Your task to perform on an android device: check out phone information Image 0: 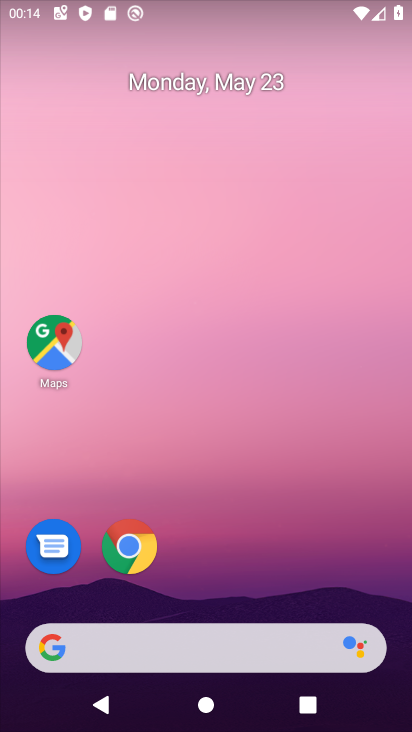
Step 0: click (278, 149)
Your task to perform on an android device: check out phone information Image 1: 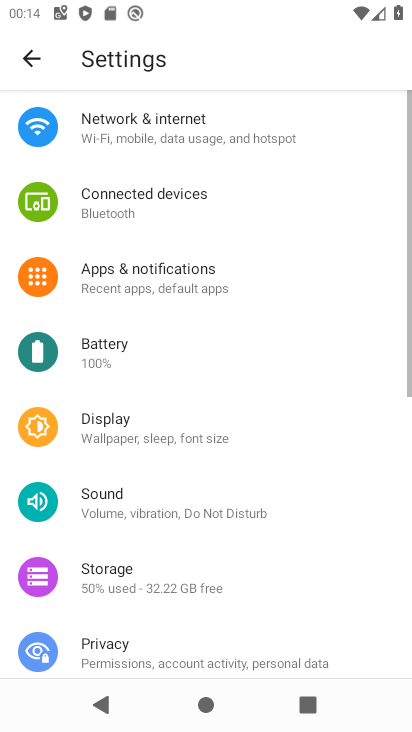
Step 1: drag from (253, 606) to (385, 20)
Your task to perform on an android device: check out phone information Image 2: 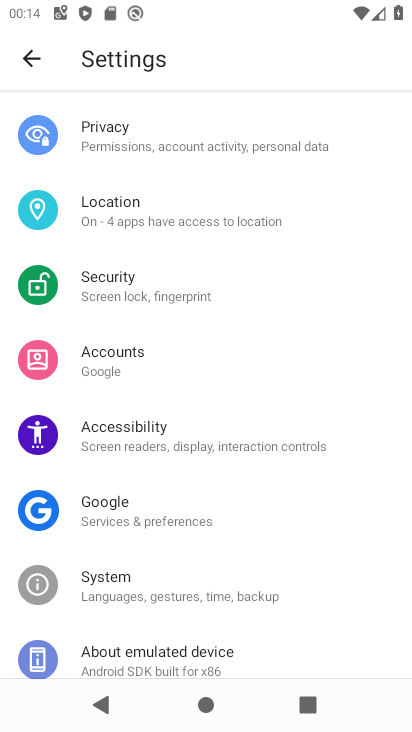
Step 2: click (117, 650)
Your task to perform on an android device: check out phone information Image 3: 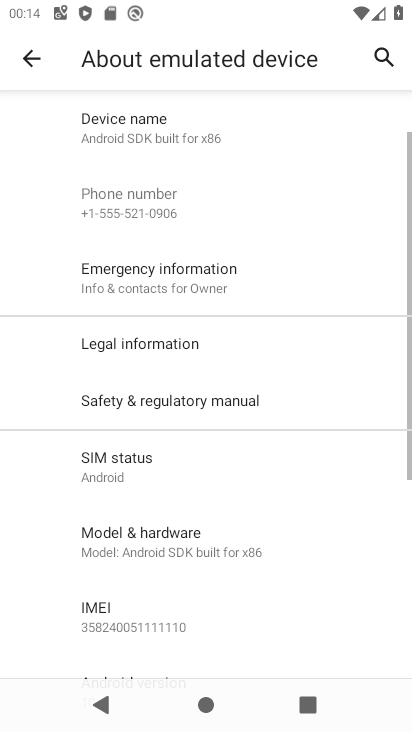
Step 3: drag from (192, 671) to (280, 152)
Your task to perform on an android device: check out phone information Image 4: 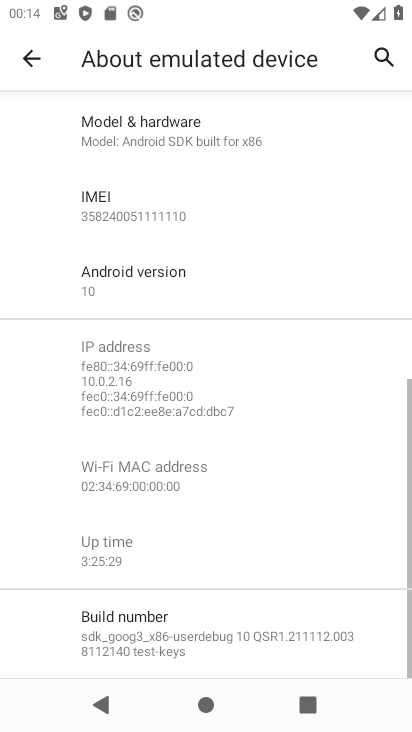
Step 4: drag from (217, 570) to (351, 128)
Your task to perform on an android device: check out phone information Image 5: 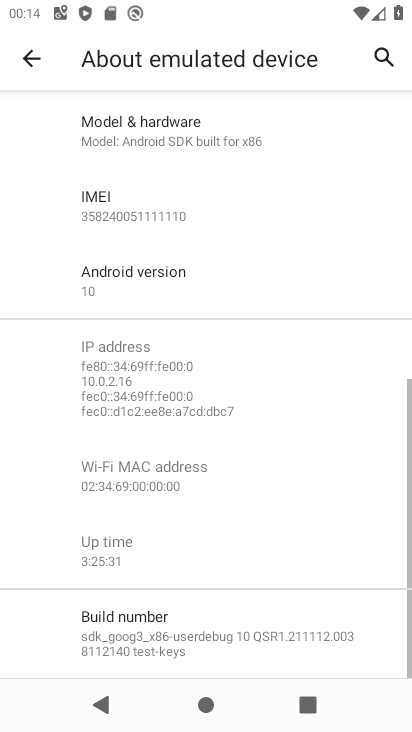
Step 5: drag from (174, 235) to (210, 677)
Your task to perform on an android device: check out phone information Image 6: 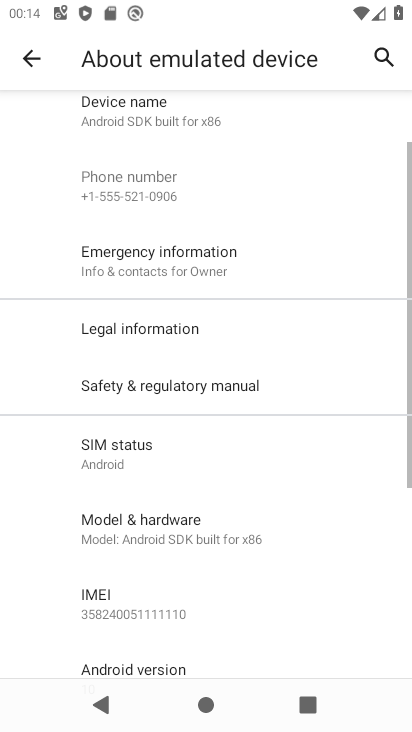
Step 6: click (134, 265)
Your task to perform on an android device: check out phone information Image 7: 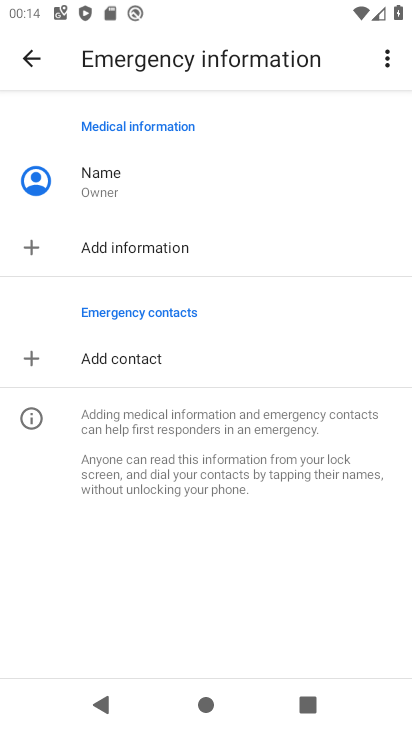
Step 7: drag from (200, 339) to (275, 155)
Your task to perform on an android device: check out phone information Image 8: 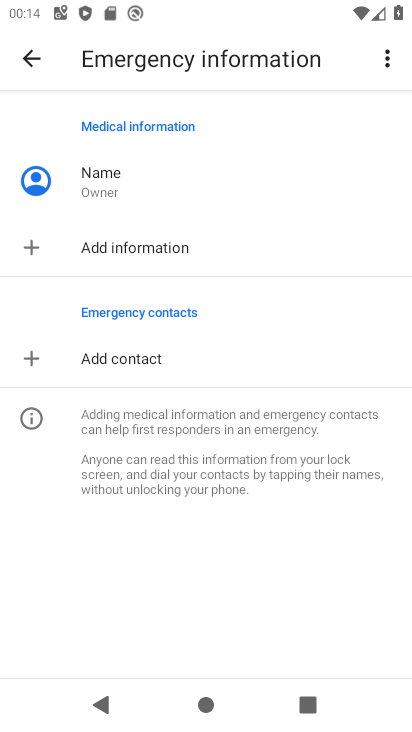
Step 8: drag from (225, 560) to (273, 271)
Your task to perform on an android device: check out phone information Image 9: 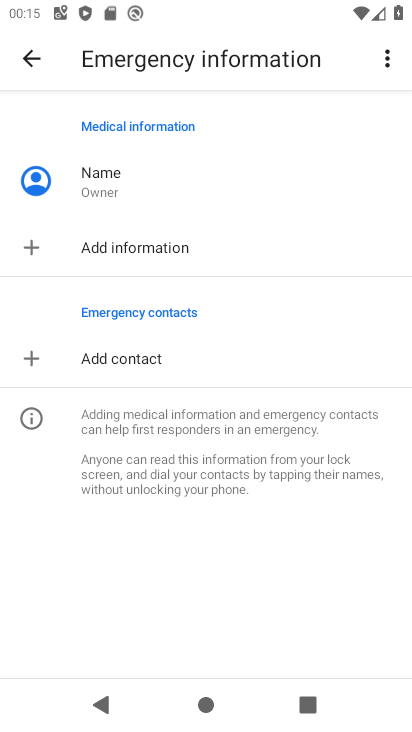
Step 9: click (36, 61)
Your task to perform on an android device: check out phone information Image 10: 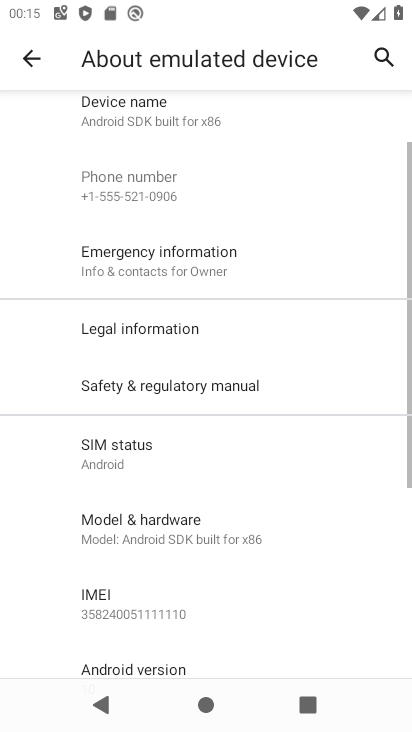
Step 10: task complete